Your task to perform on an android device: Search for the best 100% cotton t-shirts Image 0: 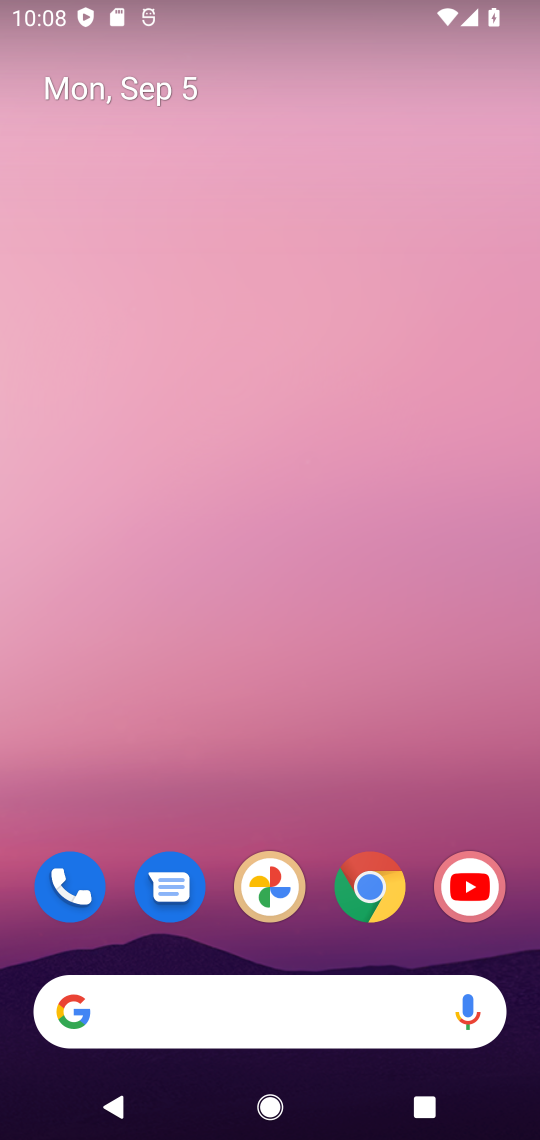
Step 0: click (369, 894)
Your task to perform on an android device: Search for the best 100% cotton t-shirts Image 1: 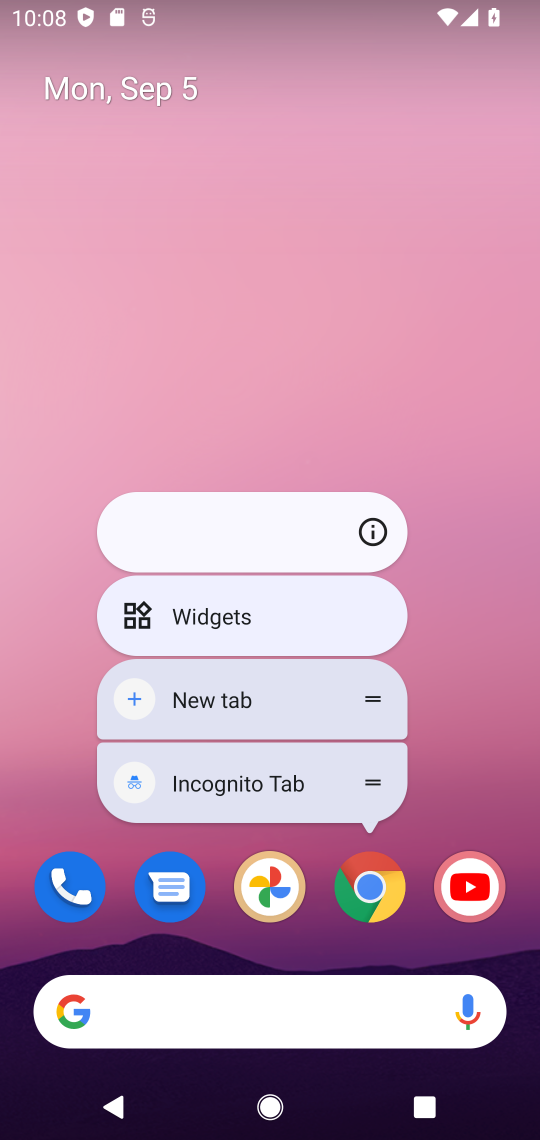
Step 1: click (369, 894)
Your task to perform on an android device: Search for the best 100% cotton t-shirts Image 2: 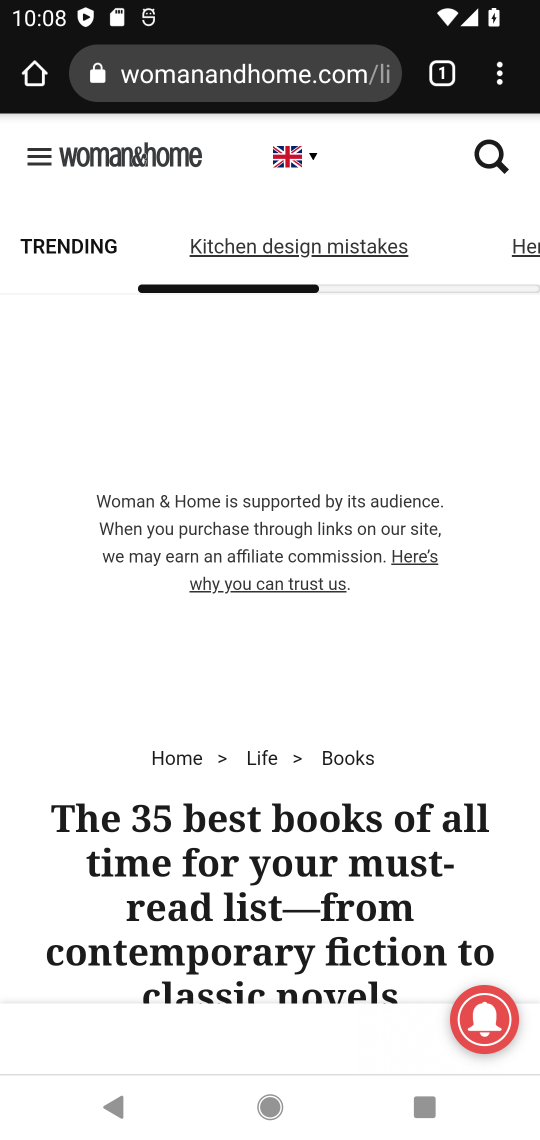
Step 2: click (174, 64)
Your task to perform on an android device: Search for the best 100% cotton t-shirts Image 3: 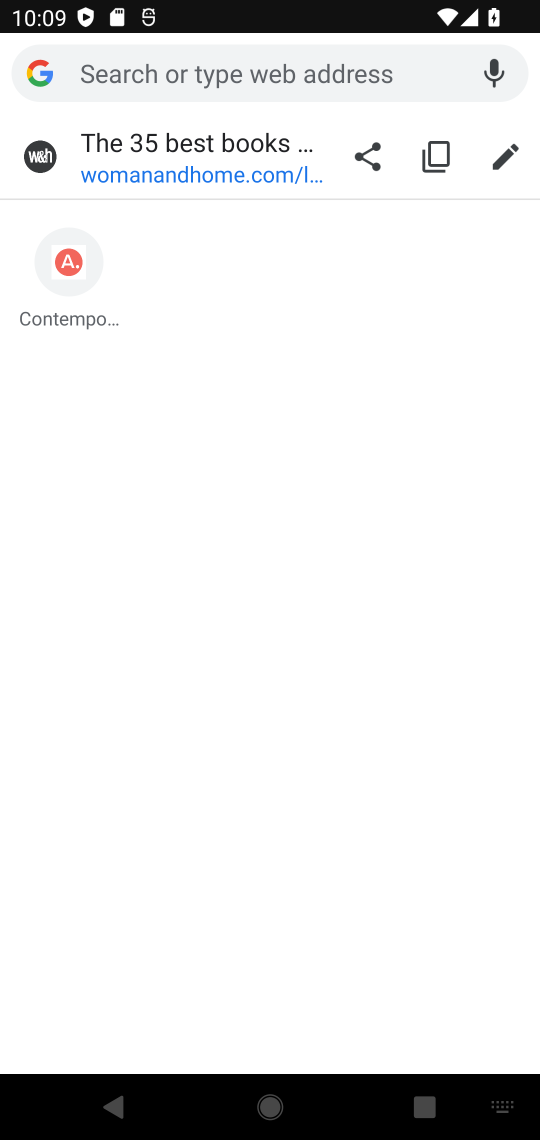
Step 3: type "the best 100% cotton t-shirts"
Your task to perform on an android device: Search for the best 100% cotton t-shirts Image 4: 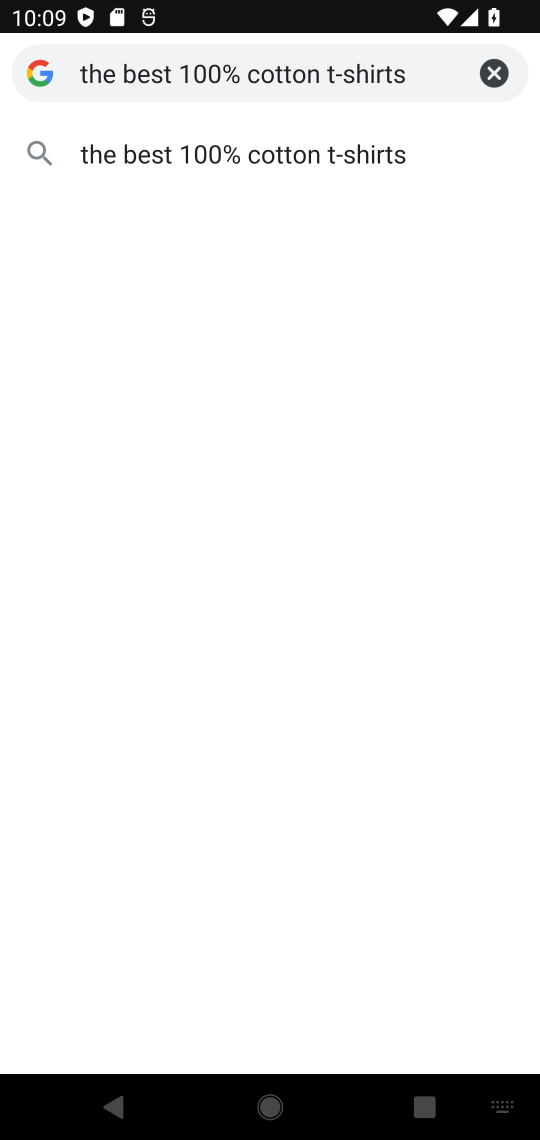
Step 4: click (379, 168)
Your task to perform on an android device: Search for the best 100% cotton t-shirts Image 5: 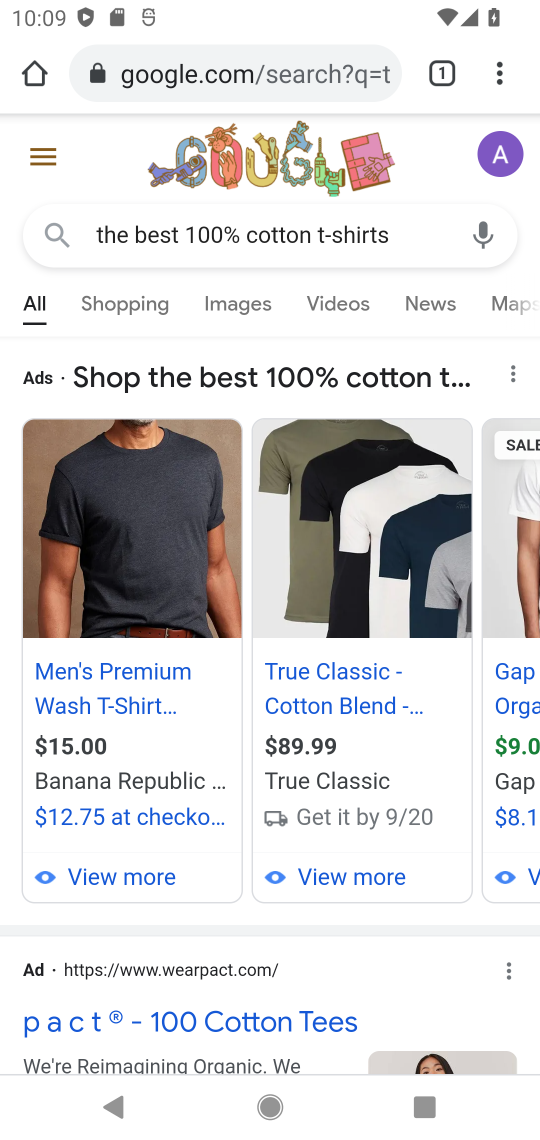
Step 5: task complete